Your task to perform on an android device: turn off javascript in the chrome app Image 0: 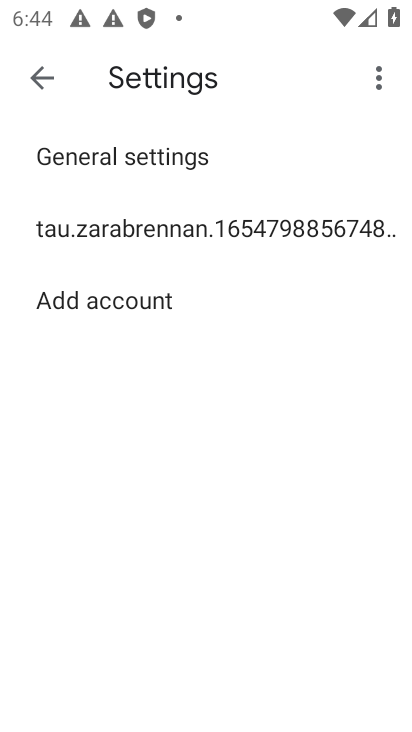
Step 0: press home button
Your task to perform on an android device: turn off javascript in the chrome app Image 1: 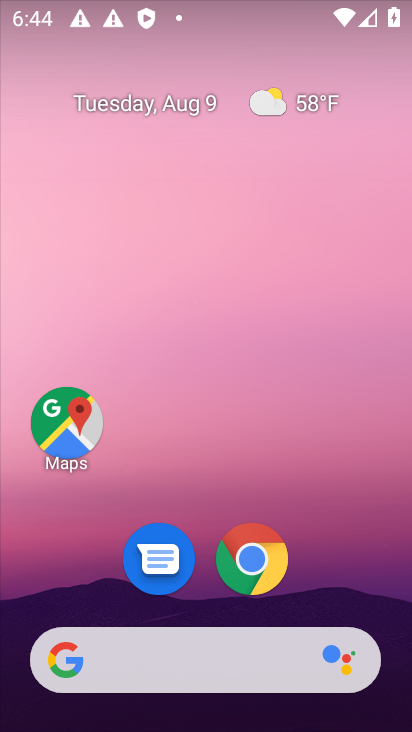
Step 1: click (246, 558)
Your task to perform on an android device: turn off javascript in the chrome app Image 2: 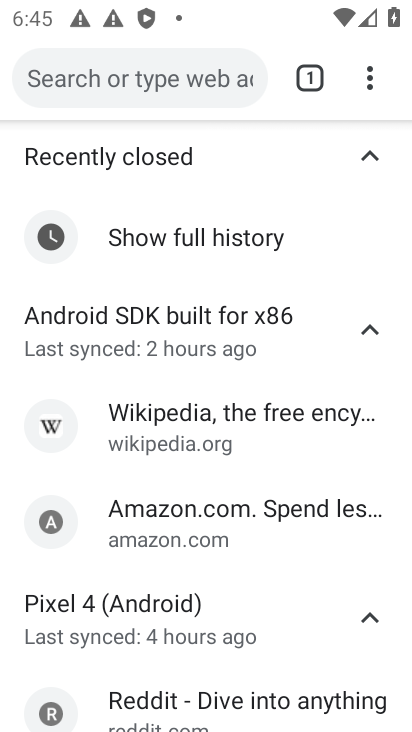
Step 2: click (367, 74)
Your task to perform on an android device: turn off javascript in the chrome app Image 3: 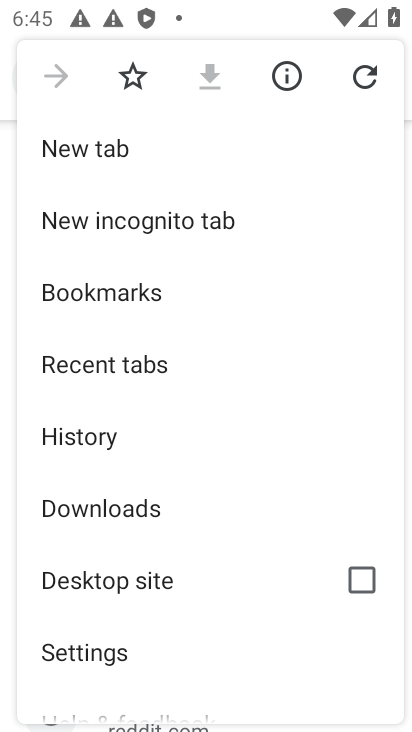
Step 3: click (97, 654)
Your task to perform on an android device: turn off javascript in the chrome app Image 4: 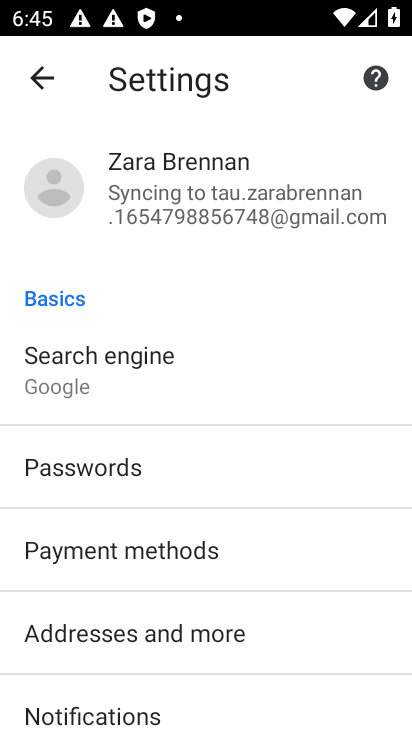
Step 4: drag from (167, 671) to (147, 347)
Your task to perform on an android device: turn off javascript in the chrome app Image 5: 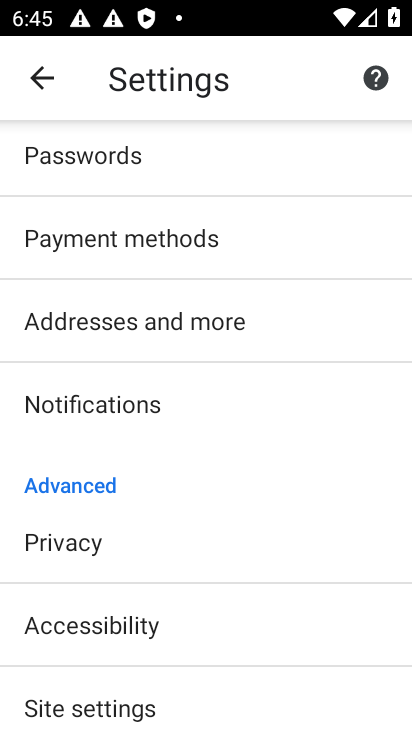
Step 5: click (121, 713)
Your task to perform on an android device: turn off javascript in the chrome app Image 6: 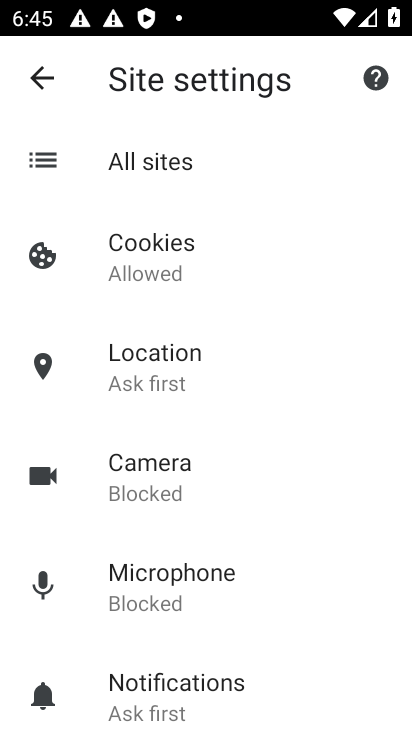
Step 6: drag from (224, 594) to (236, 254)
Your task to perform on an android device: turn off javascript in the chrome app Image 7: 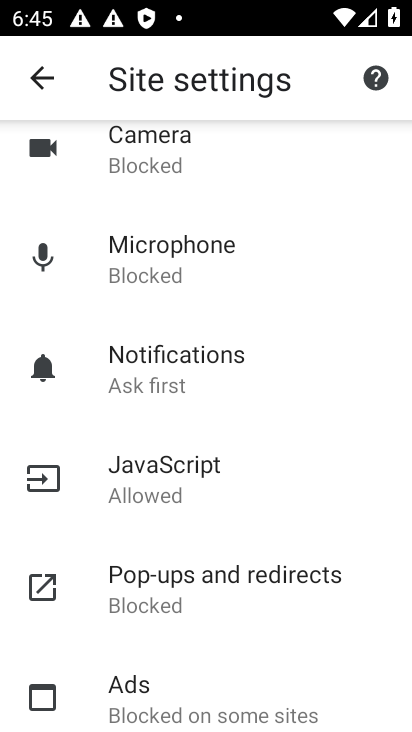
Step 7: click (170, 477)
Your task to perform on an android device: turn off javascript in the chrome app Image 8: 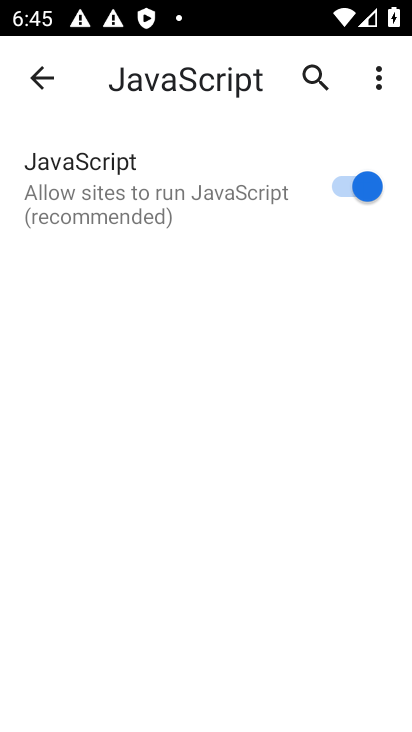
Step 8: click (337, 195)
Your task to perform on an android device: turn off javascript in the chrome app Image 9: 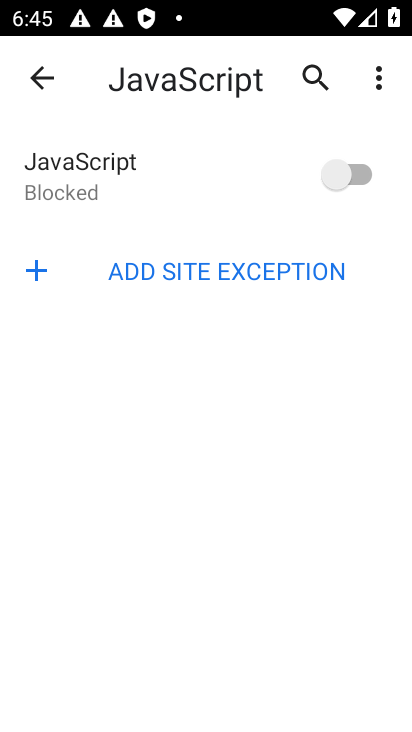
Step 9: task complete